Your task to perform on an android device: Go to Reddit.com Image 0: 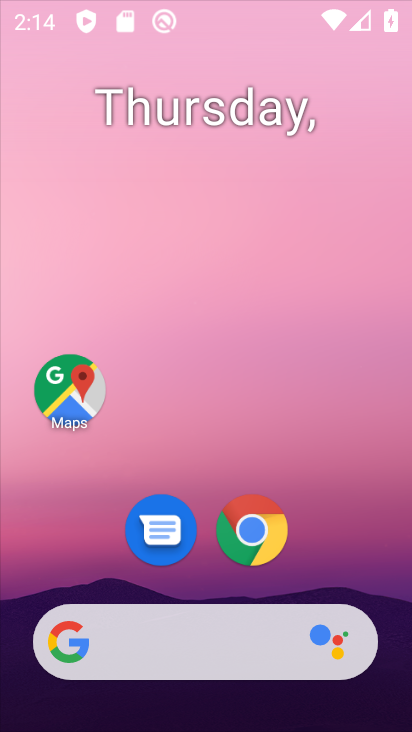
Step 0: drag from (244, 708) to (256, 2)
Your task to perform on an android device: Go to Reddit.com Image 1: 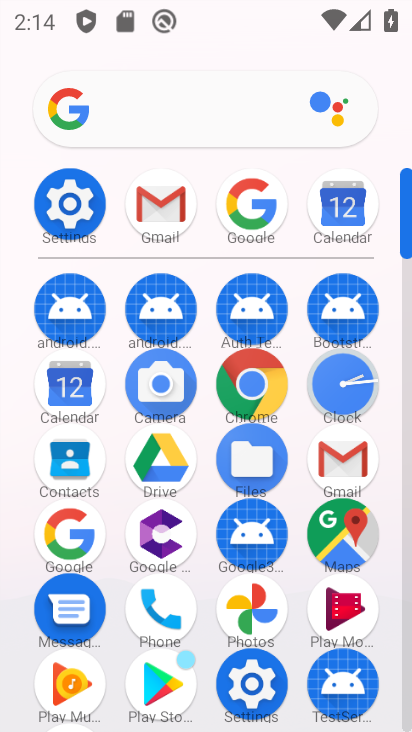
Step 1: click (260, 209)
Your task to perform on an android device: Go to Reddit.com Image 2: 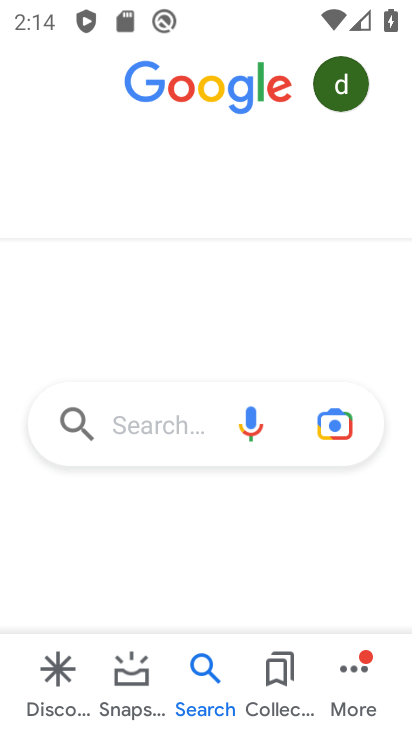
Step 2: click (146, 430)
Your task to perform on an android device: Go to Reddit.com Image 3: 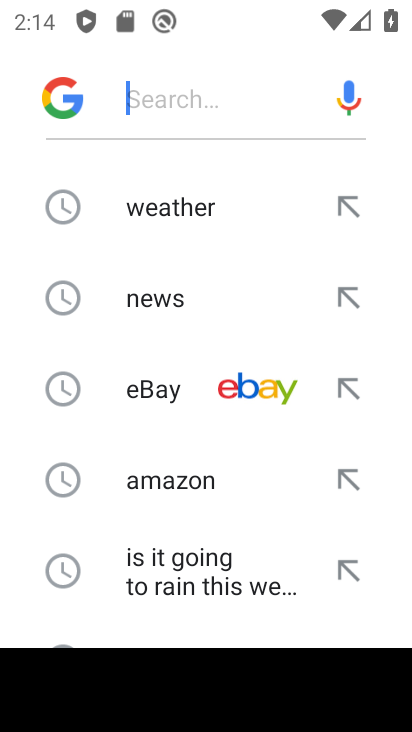
Step 3: type "reddit.com"
Your task to perform on an android device: Go to Reddit.com Image 4: 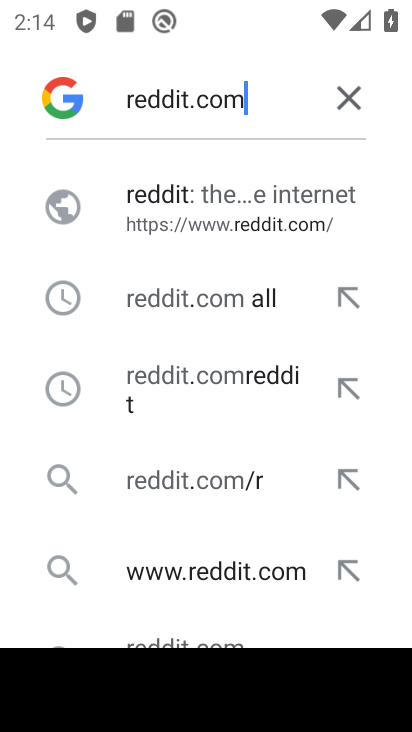
Step 4: click (302, 196)
Your task to perform on an android device: Go to Reddit.com Image 5: 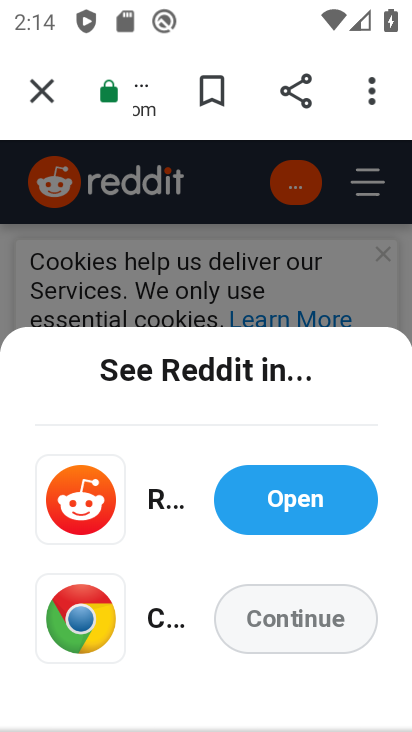
Step 5: task complete